Your task to perform on an android device: Open the map Image 0: 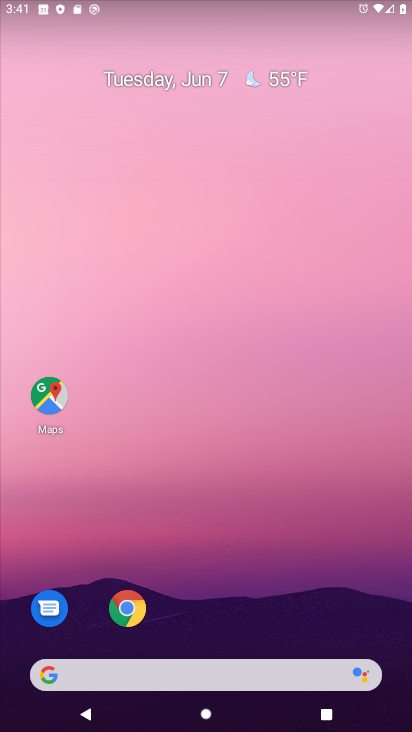
Step 0: click (35, 388)
Your task to perform on an android device: Open the map Image 1: 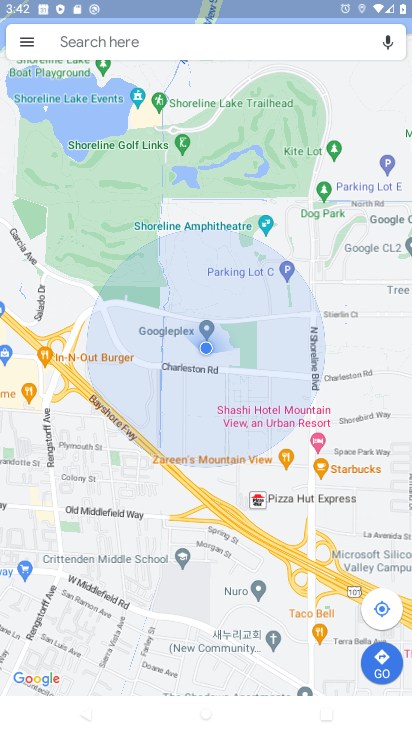
Step 1: task complete